Your task to perform on an android device: open wifi settings Image 0: 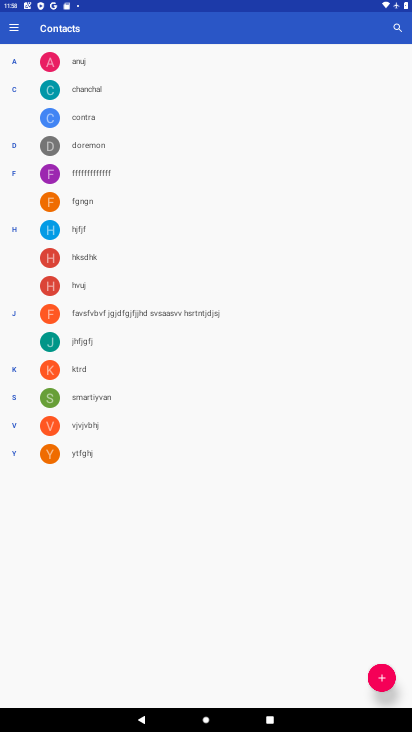
Step 0: press home button
Your task to perform on an android device: open wifi settings Image 1: 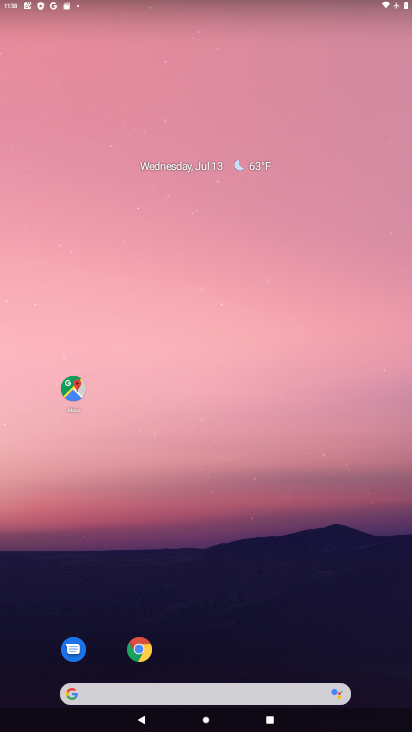
Step 1: drag from (194, 464) to (189, 125)
Your task to perform on an android device: open wifi settings Image 2: 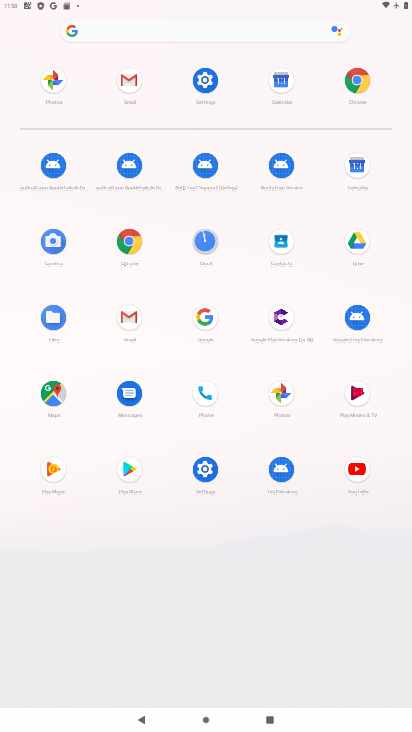
Step 2: click (203, 84)
Your task to perform on an android device: open wifi settings Image 3: 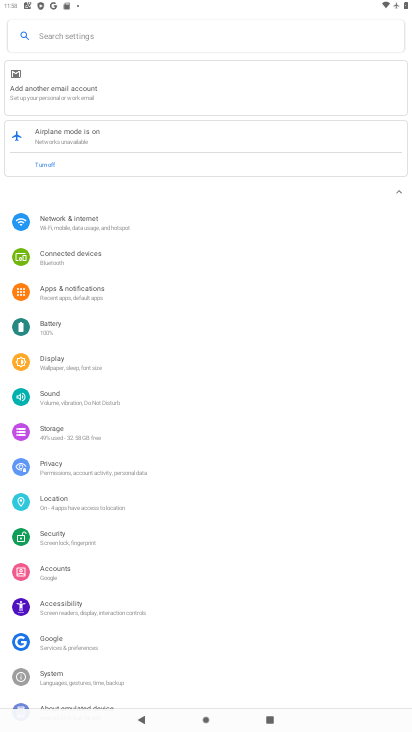
Step 3: click (118, 226)
Your task to perform on an android device: open wifi settings Image 4: 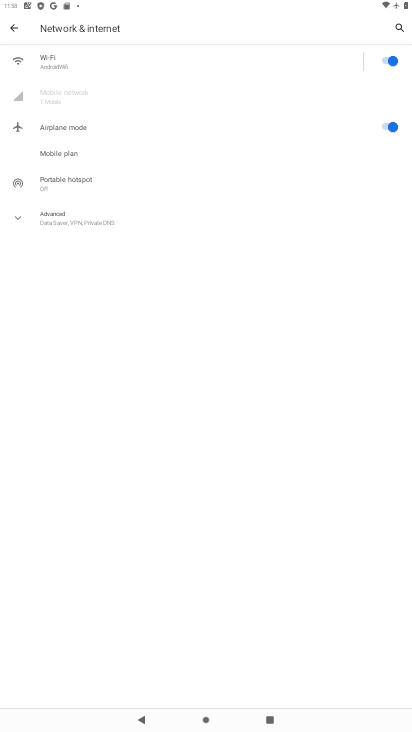
Step 4: click (49, 57)
Your task to perform on an android device: open wifi settings Image 5: 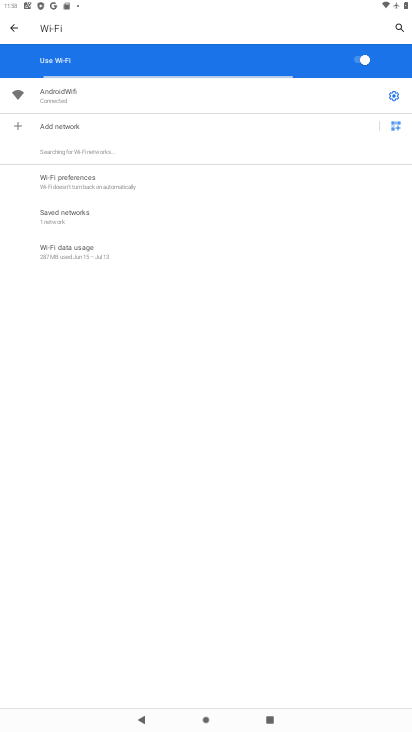
Step 5: task complete